Your task to perform on an android device: add a contact Image 0: 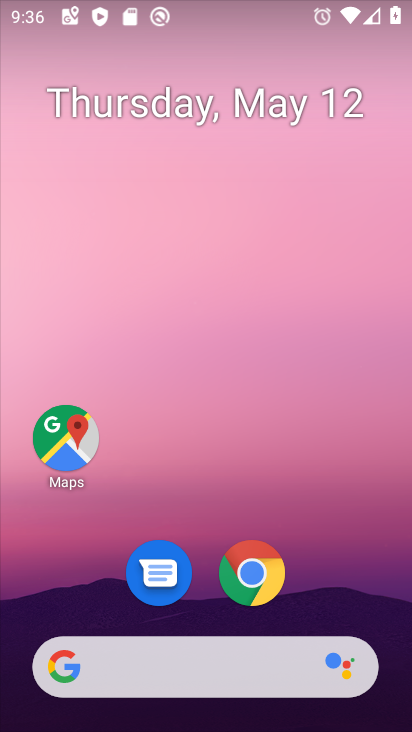
Step 0: drag from (333, 561) to (247, 89)
Your task to perform on an android device: add a contact Image 1: 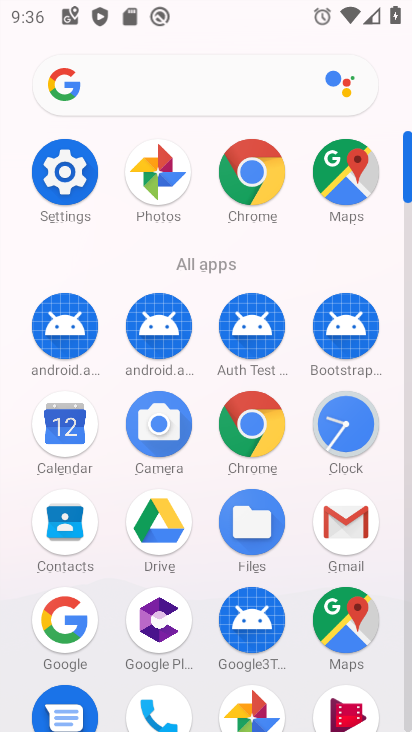
Step 1: click (69, 520)
Your task to perform on an android device: add a contact Image 2: 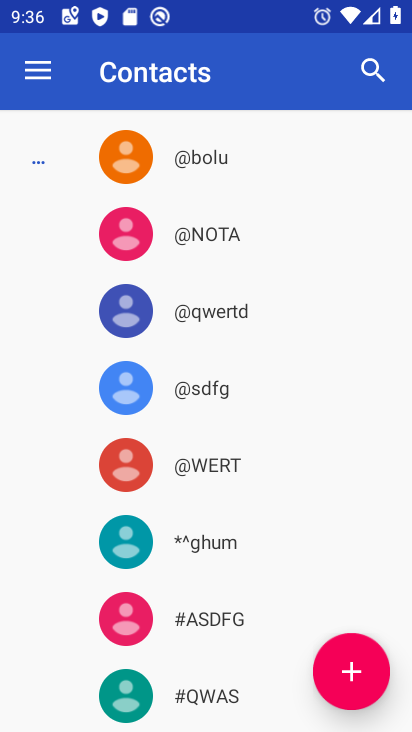
Step 2: click (352, 668)
Your task to perform on an android device: add a contact Image 3: 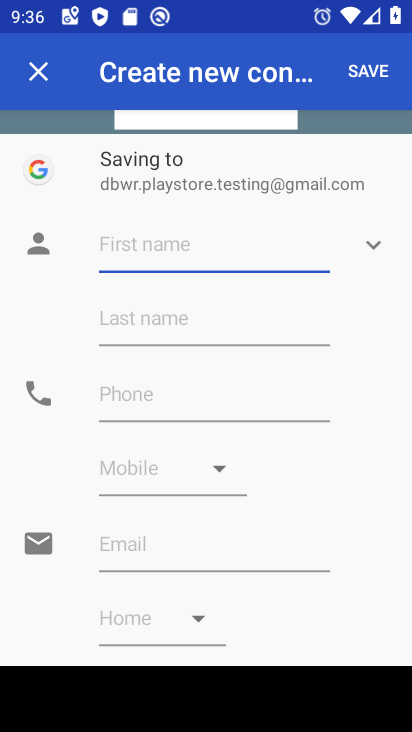
Step 3: click (186, 251)
Your task to perform on an android device: add a contact Image 4: 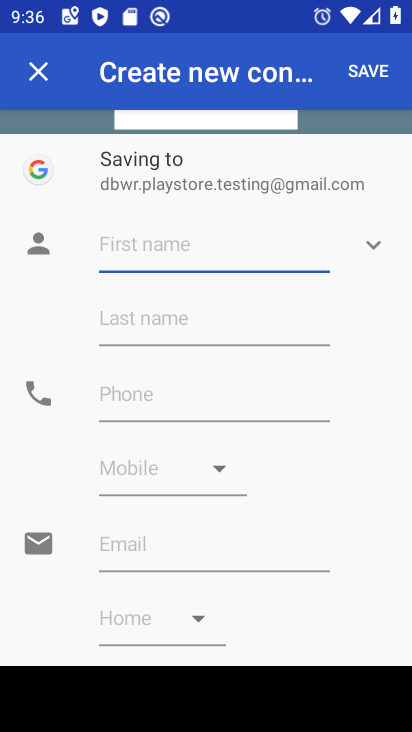
Step 4: type "Ashwani Kumar"
Your task to perform on an android device: add a contact Image 5: 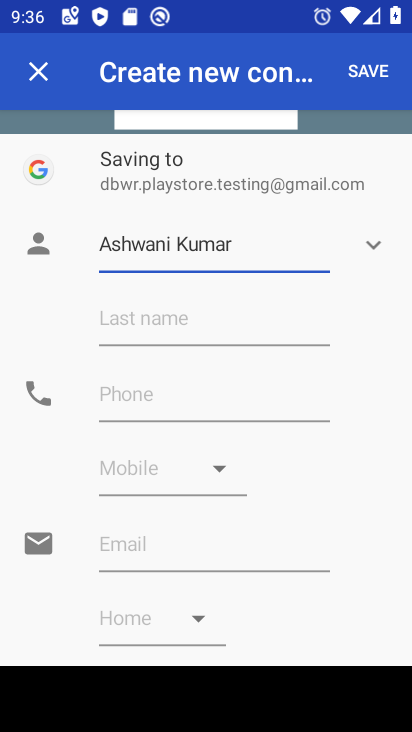
Step 5: click (237, 326)
Your task to perform on an android device: add a contact Image 6: 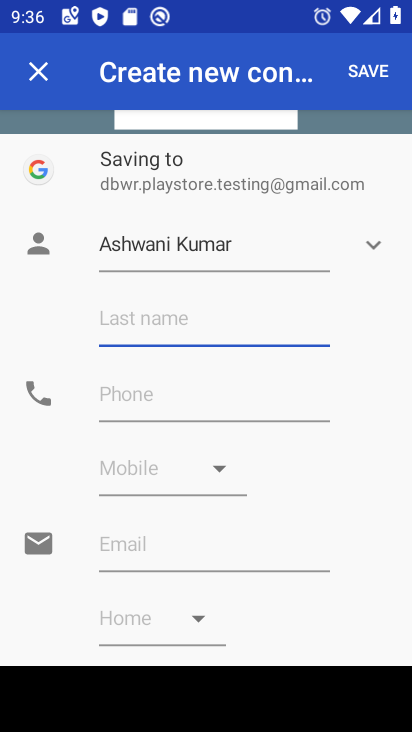
Step 6: type "Upadhyay"
Your task to perform on an android device: add a contact Image 7: 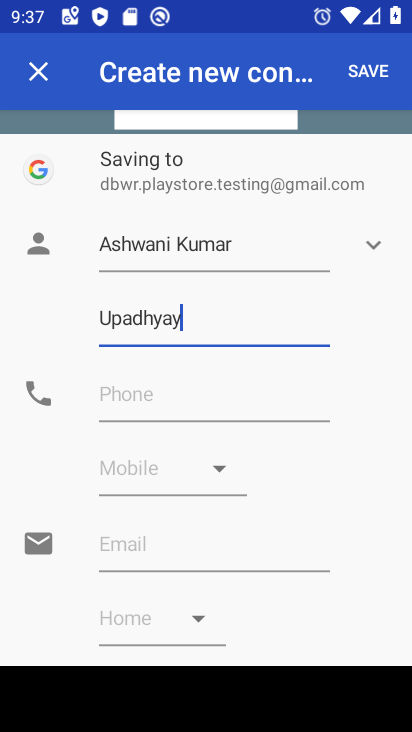
Step 7: click (276, 390)
Your task to perform on an android device: add a contact Image 8: 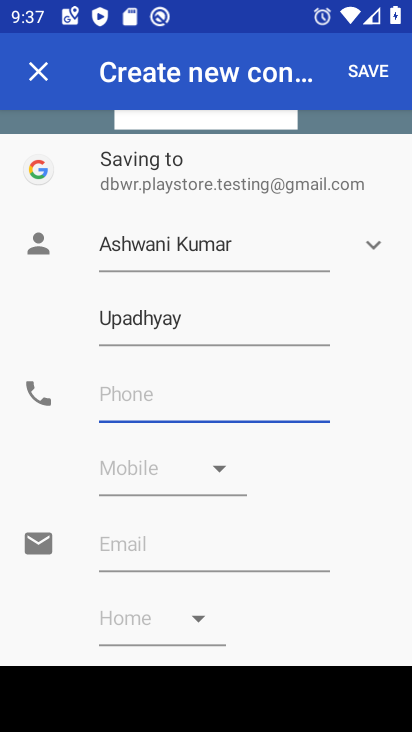
Step 8: type "0926436415"
Your task to perform on an android device: add a contact Image 9: 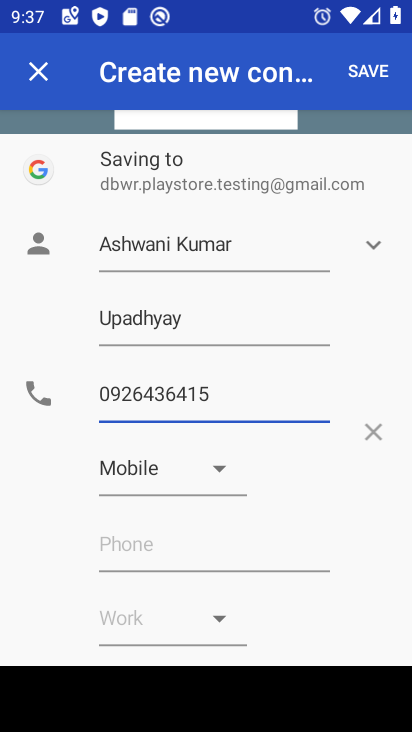
Step 9: click (383, 75)
Your task to perform on an android device: add a contact Image 10: 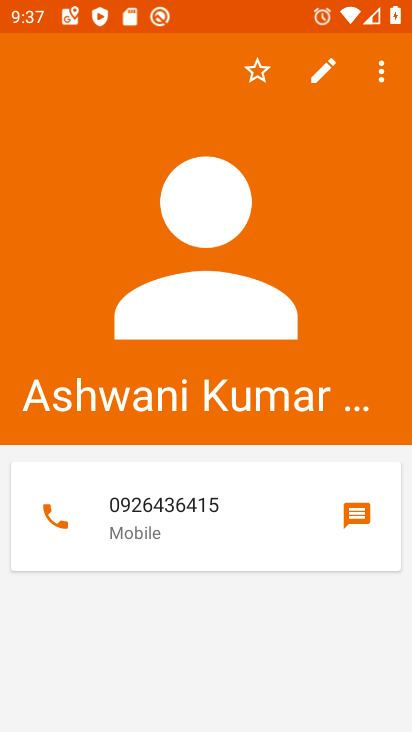
Step 10: task complete